Your task to perform on an android device: see sites visited before in the chrome app Image 0: 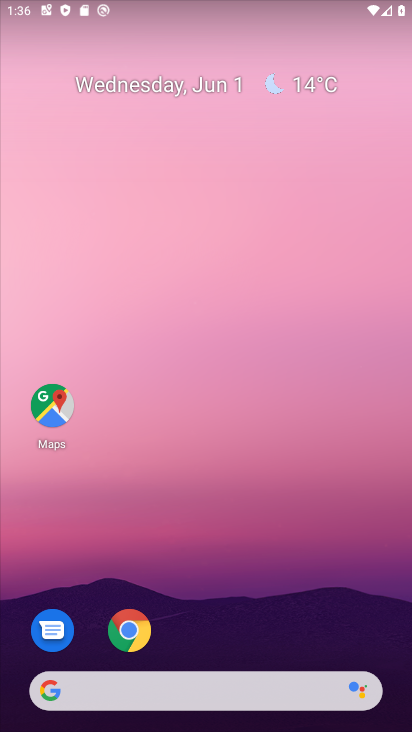
Step 0: press home button
Your task to perform on an android device: see sites visited before in the chrome app Image 1: 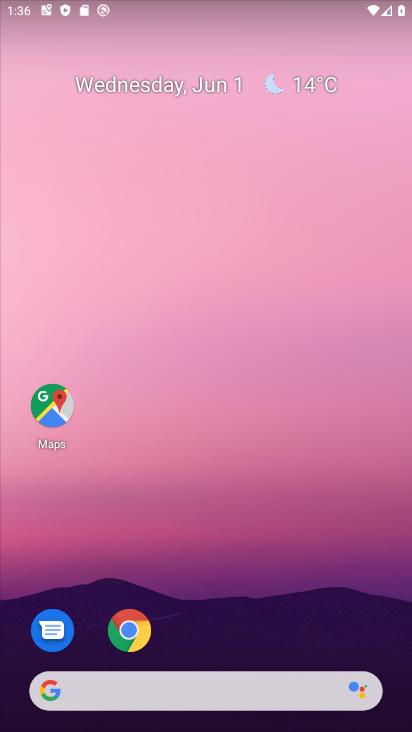
Step 1: click (129, 627)
Your task to perform on an android device: see sites visited before in the chrome app Image 2: 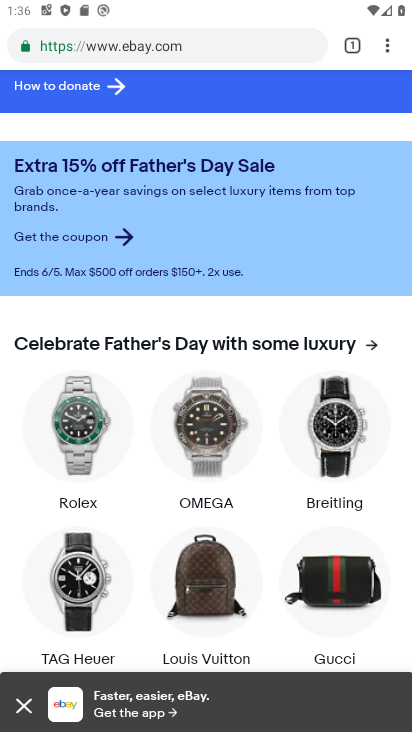
Step 2: click (386, 37)
Your task to perform on an android device: see sites visited before in the chrome app Image 3: 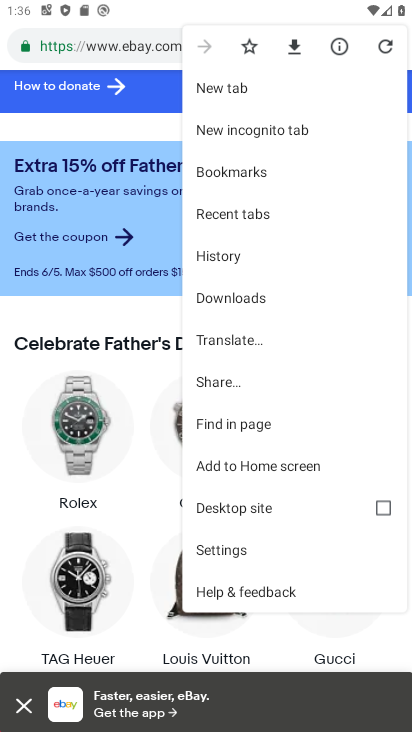
Step 3: click (249, 249)
Your task to perform on an android device: see sites visited before in the chrome app Image 4: 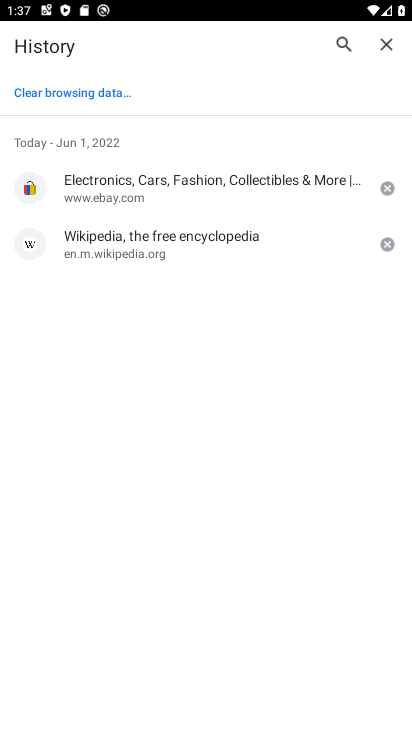
Step 4: task complete